Your task to perform on an android device: turn on notifications settings in the gmail app Image 0: 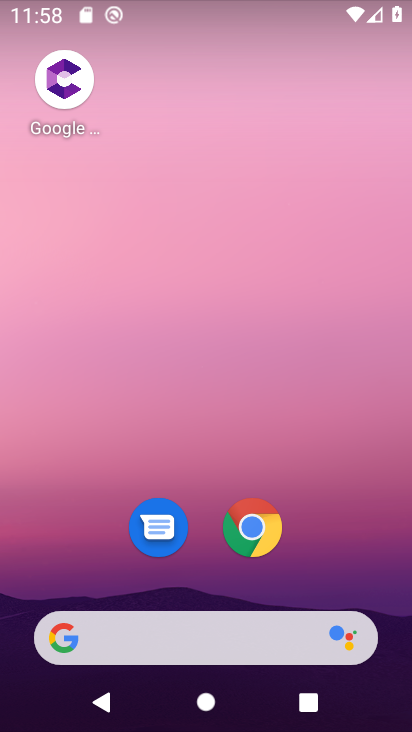
Step 0: drag from (182, 603) to (309, 113)
Your task to perform on an android device: turn on notifications settings in the gmail app Image 1: 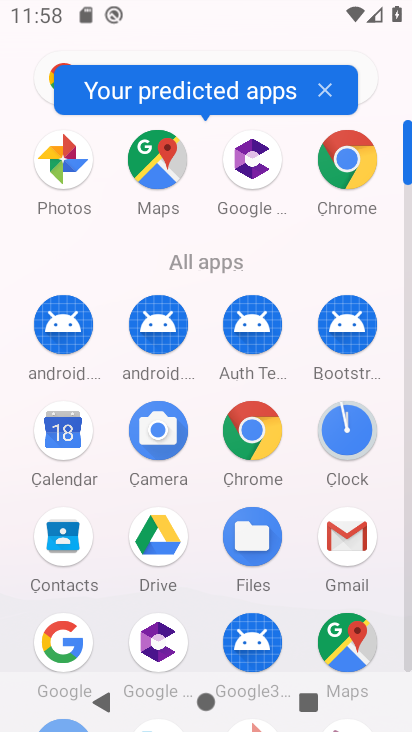
Step 1: click (334, 559)
Your task to perform on an android device: turn on notifications settings in the gmail app Image 2: 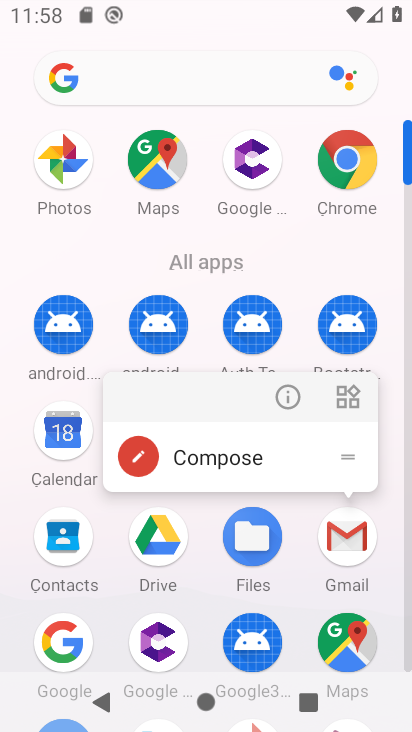
Step 2: click (291, 406)
Your task to perform on an android device: turn on notifications settings in the gmail app Image 3: 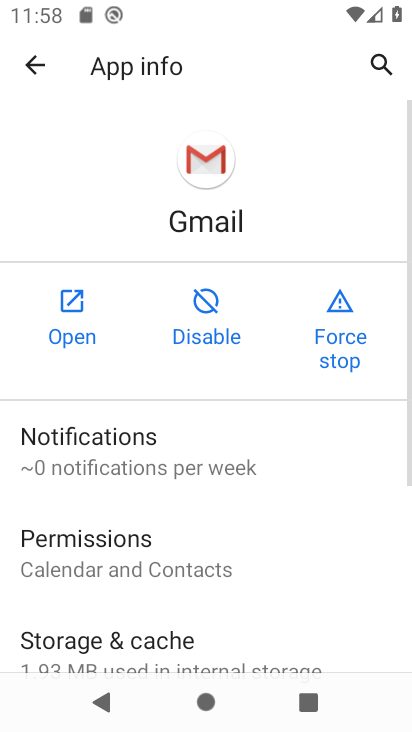
Step 3: click (115, 427)
Your task to perform on an android device: turn on notifications settings in the gmail app Image 4: 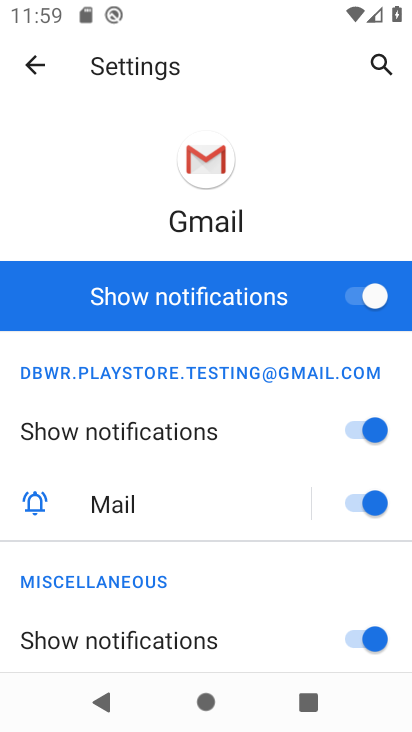
Step 4: task complete